Your task to perform on an android device: turn notification dots off Image 0: 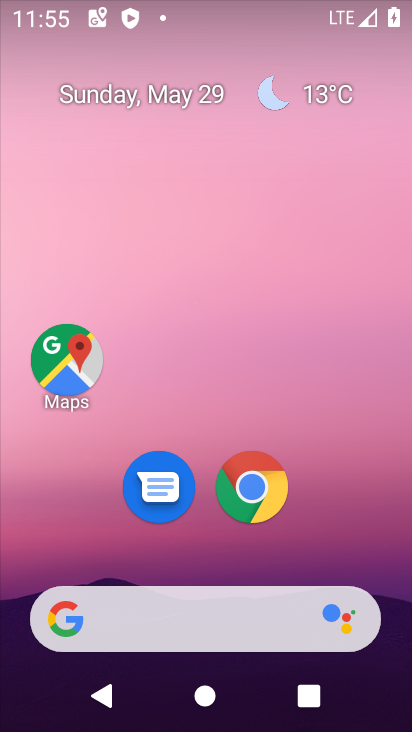
Step 0: drag from (351, 540) to (310, 44)
Your task to perform on an android device: turn notification dots off Image 1: 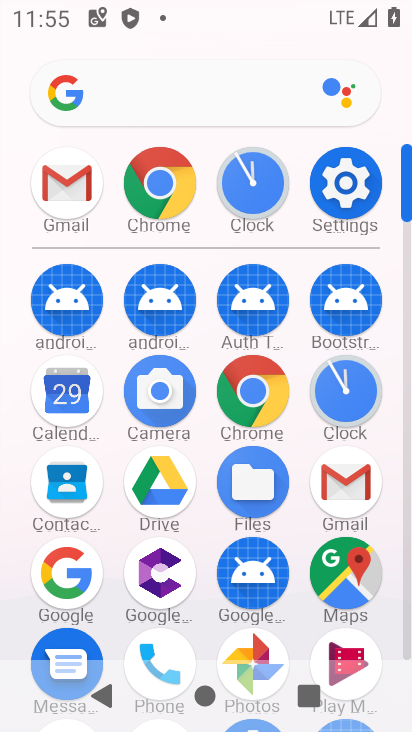
Step 1: click (347, 217)
Your task to perform on an android device: turn notification dots off Image 2: 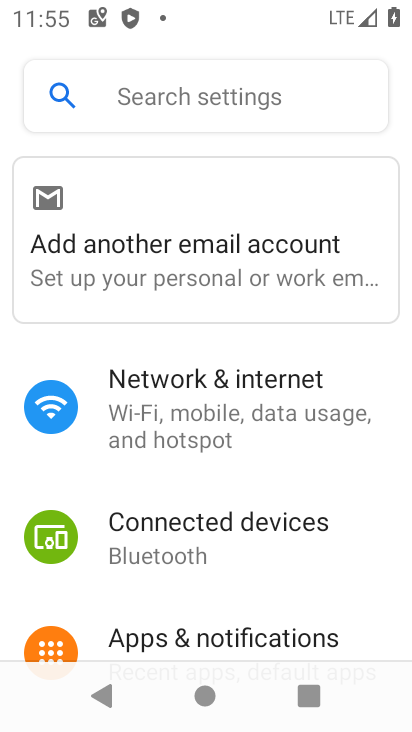
Step 2: drag from (276, 541) to (231, 153)
Your task to perform on an android device: turn notification dots off Image 3: 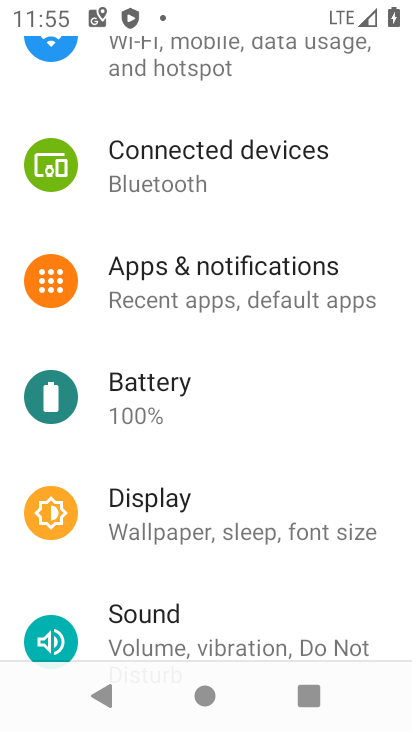
Step 3: click (177, 288)
Your task to perform on an android device: turn notification dots off Image 4: 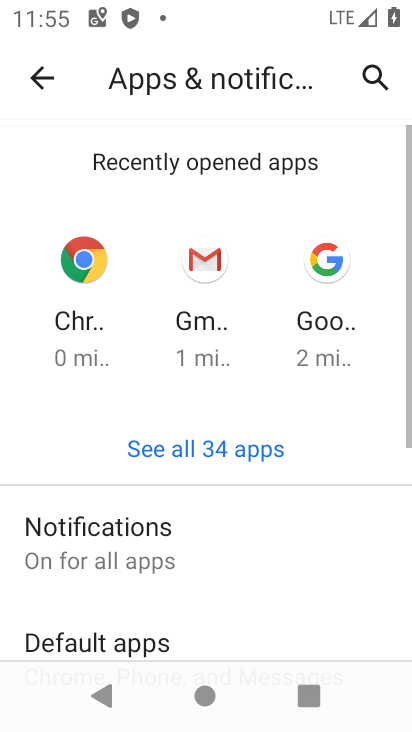
Step 4: drag from (224, 651) to (189, 171)
Your task to perform on an android device: turn notification dots off Image 5: 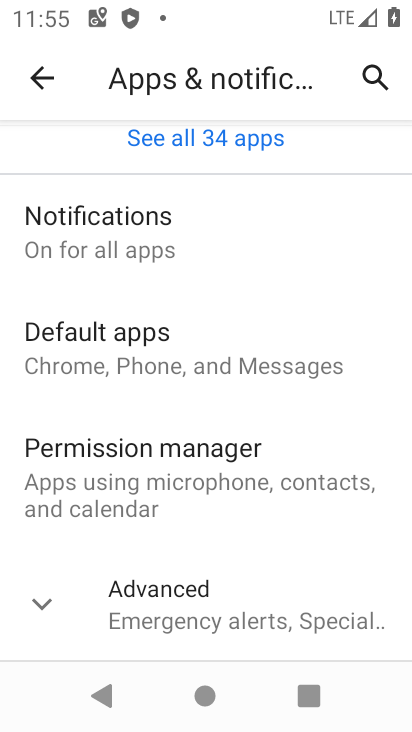
Step 5: drag from (211, 620) to (213, 274)
Your task to perform on an android device: turn notification dots off Image 6: 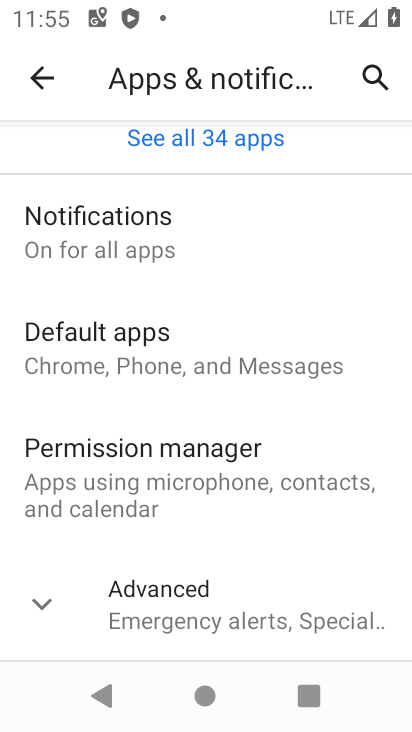
Step 6: click (103, 624)
Your task to perform on an android device: turn notification dots off Image 7: 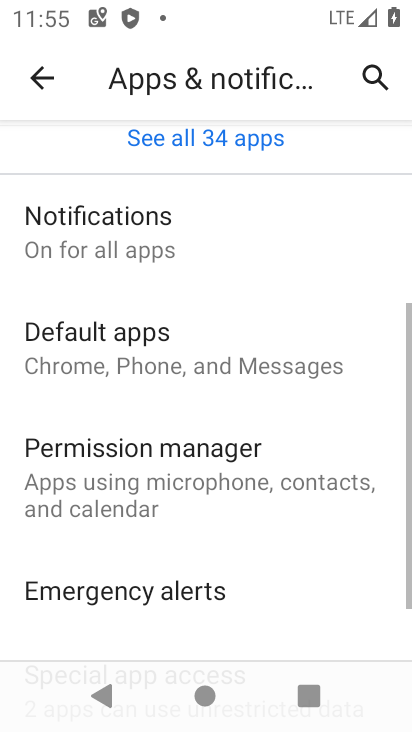
Step 7: drag from (200, 539) to (187, 269)
Your task to perform on an android device: turn notification dots off Image 8: 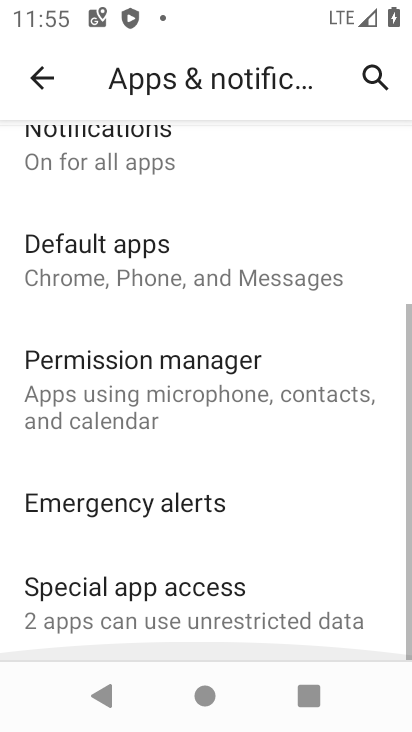
Step 8: click (174, 173)
Your task to perform on an android device: turn notification dots off Image 9: 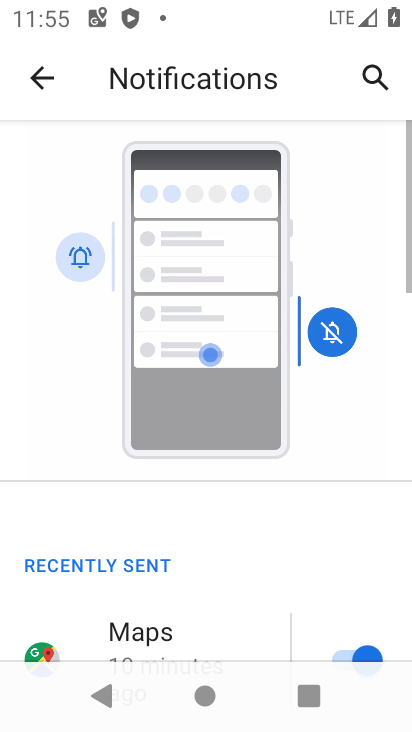
Step 9: drag from (188, 587) to (210, 145)
Your task to perform on an android device: turn notification dots off Image 10: 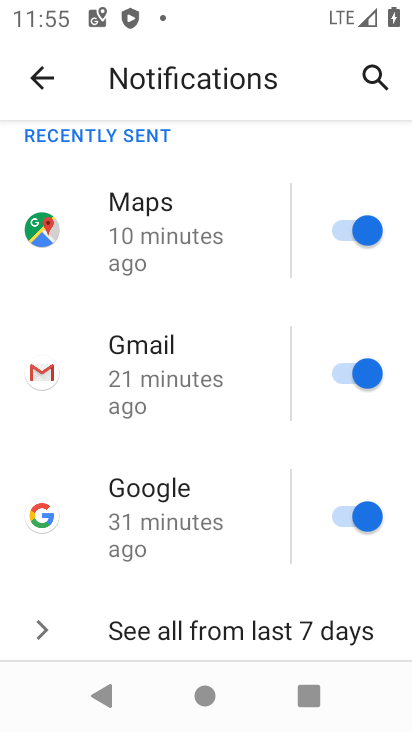
Step 10: drag from (150, 624) to (147, 172)
Your task to perform on an android device: turn notification dots off Image 11: 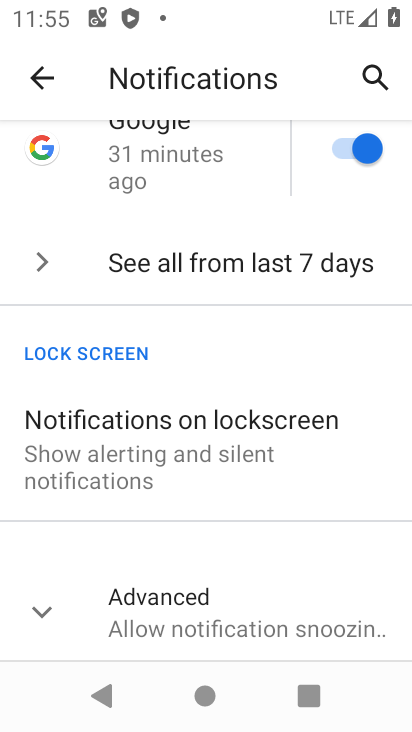
Step 11: click (125, 592)
Your task to perform on an android device: turn notification dots off Image 12: 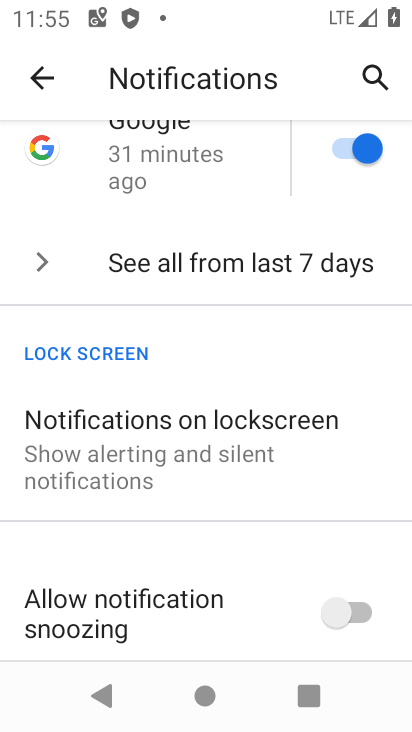
Step 12: task complete